Your task to perform on an android device: stop showing notifications on the lock screen Image 0: 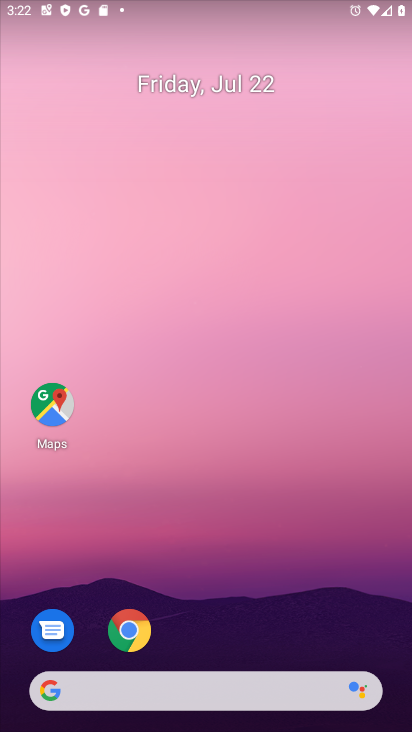
Step 0: drag from (210, 652) to (147, 351)
Your task to perform on an android device: stop showing notifications on the lock screen Image 1: 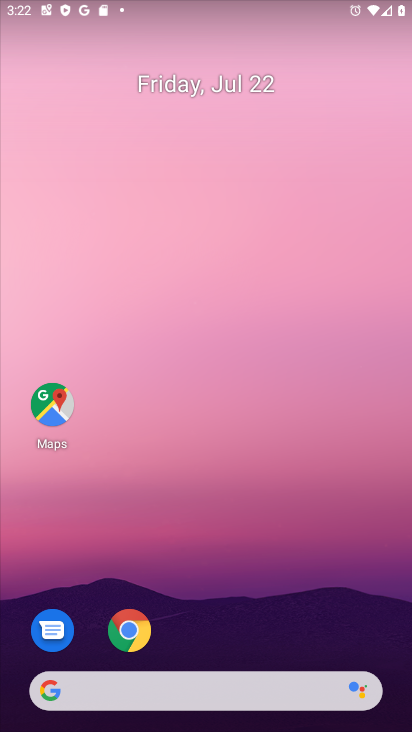
Step 1: drag from (206, 695) to (161, 388)
Your task to perform on an android device: stop showing notifications on the lock screen Image 2: 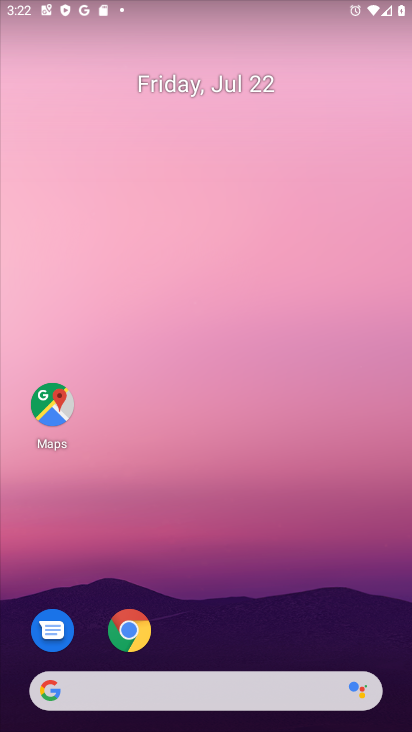
Step 2: drag from (220, 686) to (179, 531)
Your task to perform on an android device: stop showing notifications on the lock screen Image 3: 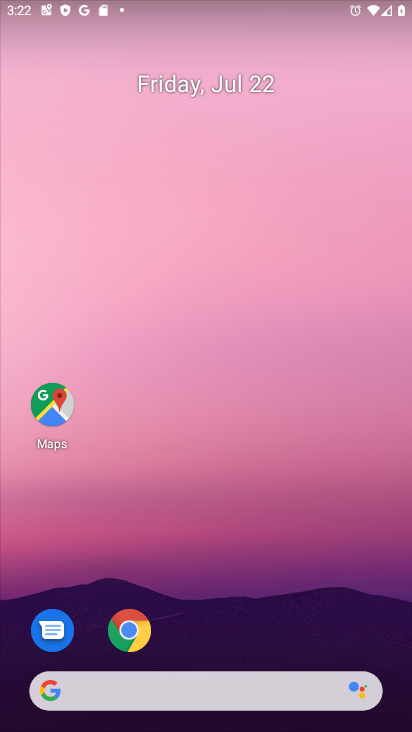
Step 3: drag from (203, 678) to (188, 65)
Your task to perform on an android device: stop showing notifications on the lock screen Image 4: 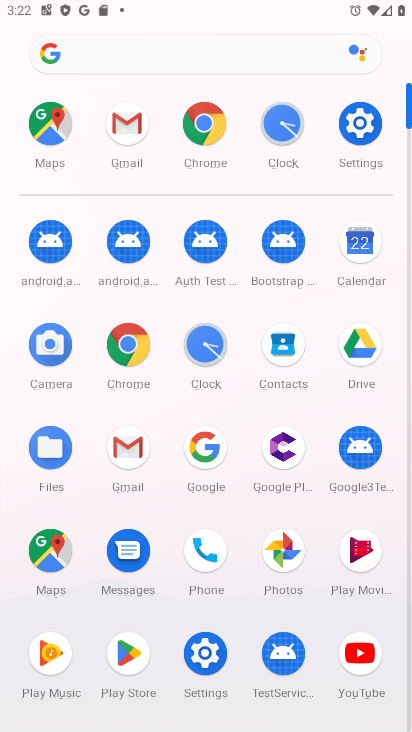
Step 4: click (359, 124)
Your task to perform on an android device: stop showing notifications on the lock screen Image 5: 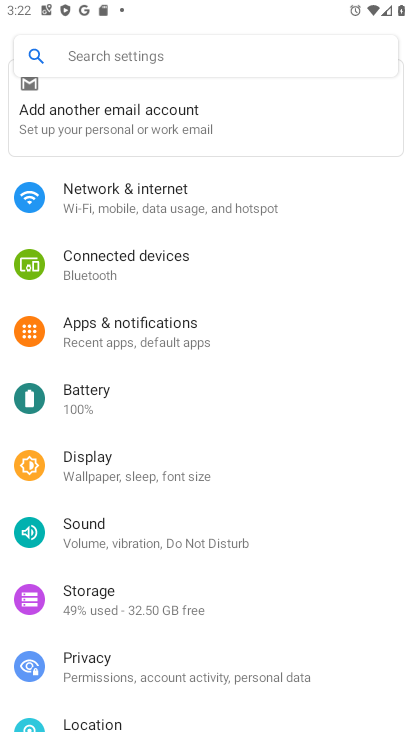
Step 5: click (154, 342)
Your task to perform on an android device: stop showing notifications on the lock screen Image 6: 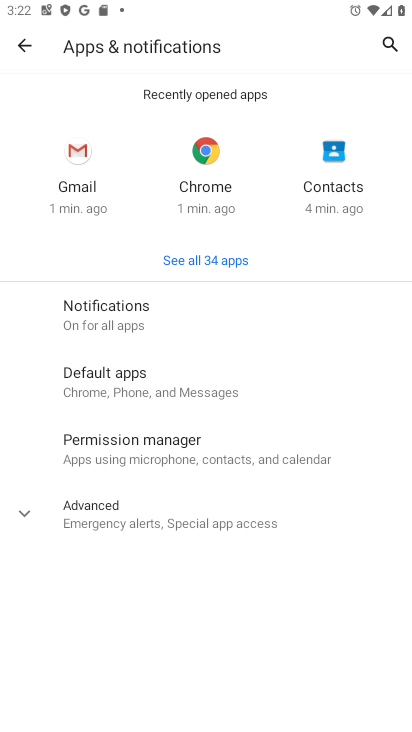
Step 6: click (114, 301)
Your task to perform on an android device: stop showing notifications on the lock screen Image 7: 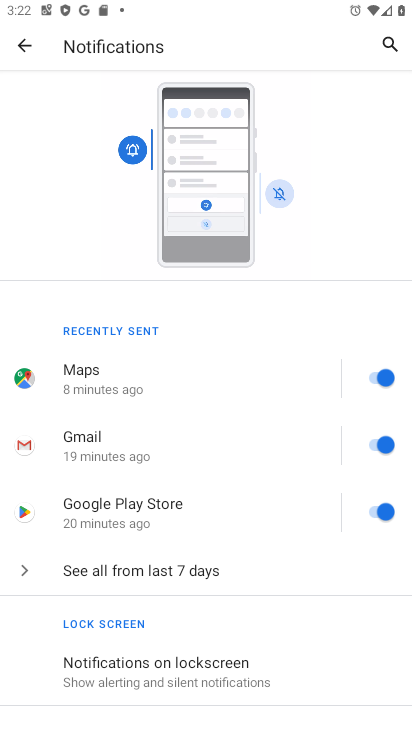
Step 7: click (147, 670)
Your task to perform on an android device: stop showing notifications on the lock screen Image 8: 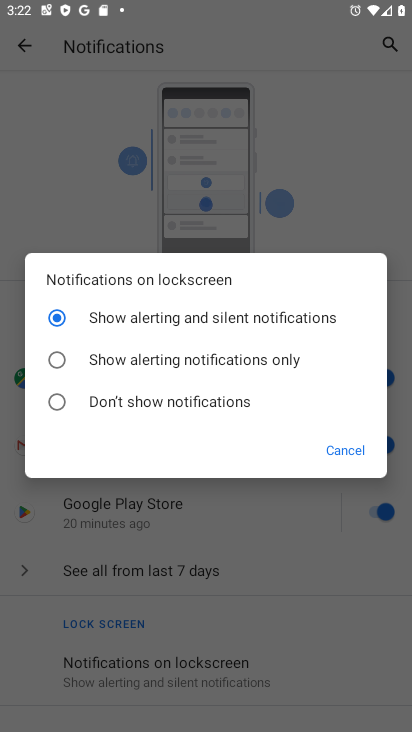
Step 8: click (118, 393)
Your task to perform on an android device: stop showing notifications on the lock screen Image 9: 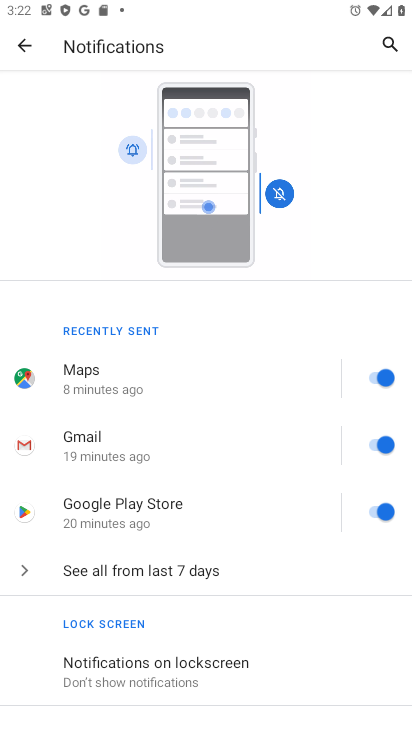
Step 9: task complete